Your task to perform on an android device: Open Google Image 0: 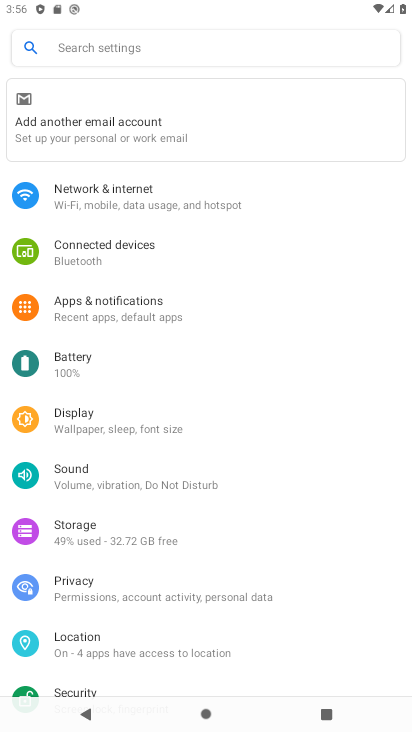
Step 0: press home button
Your task to perform on an android device: Open Google Image 1: 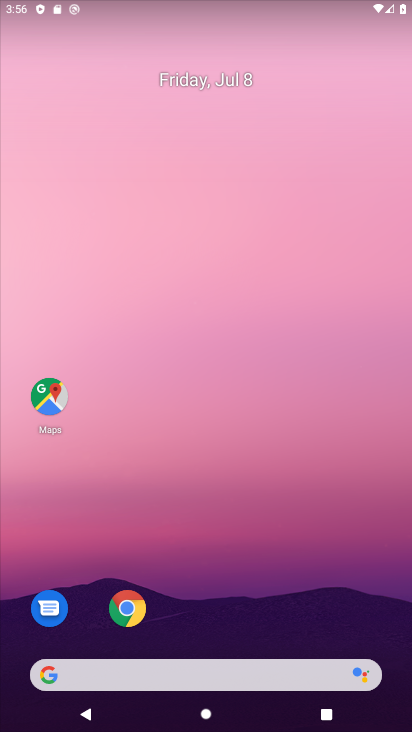
Step 1: drag from (268, 603) to (316, 22)
Your task to perform on an android device: Open Google Image 2: 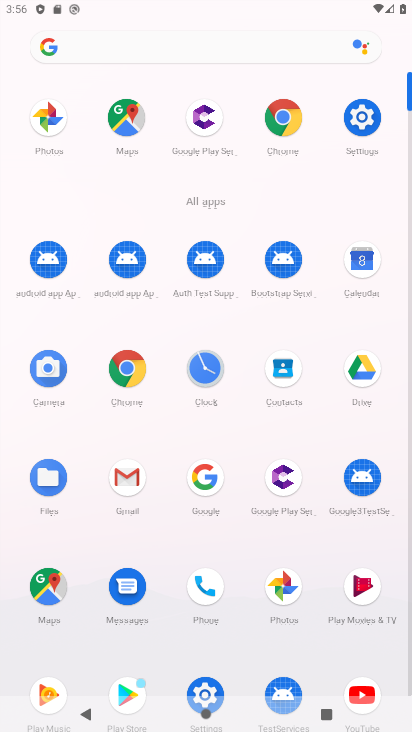
Step 2: click (211, 479)
Your task to perform on an android device: Open Google Image 3: 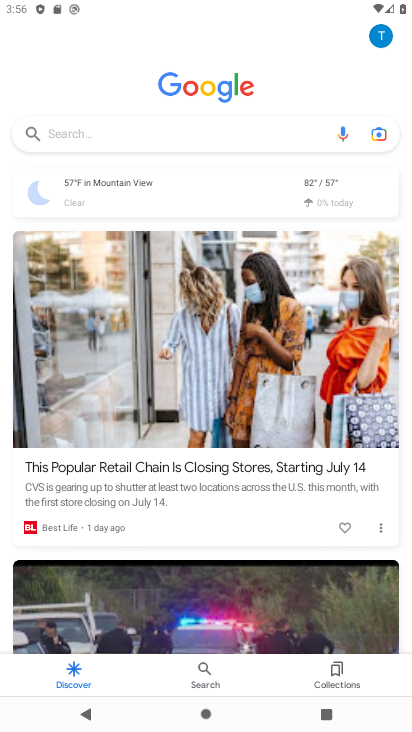
Step 3: task complete